Your task to perform on an android device: empty trash in google photos Image 0: 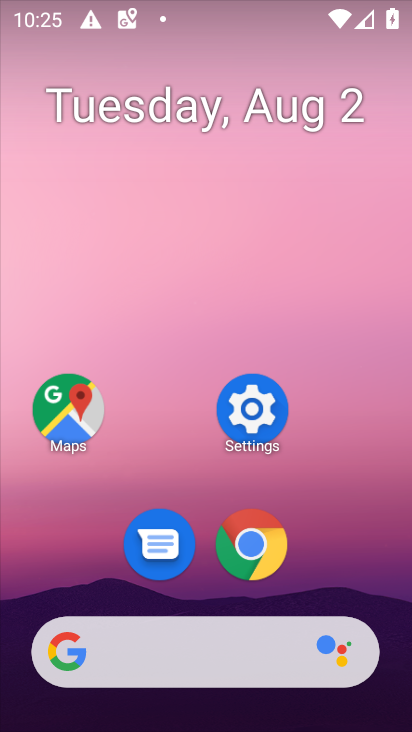
Step 0: press home button
Your task to perform on an android device: empty trash in google photos Image 1: 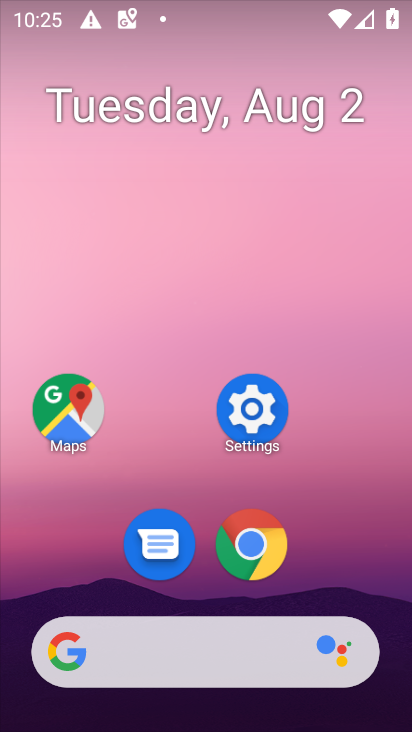
Step 1: drag from (205, 647) to (354, 73)
Your task to perform on an android device: empty trash in google photos Image 2: 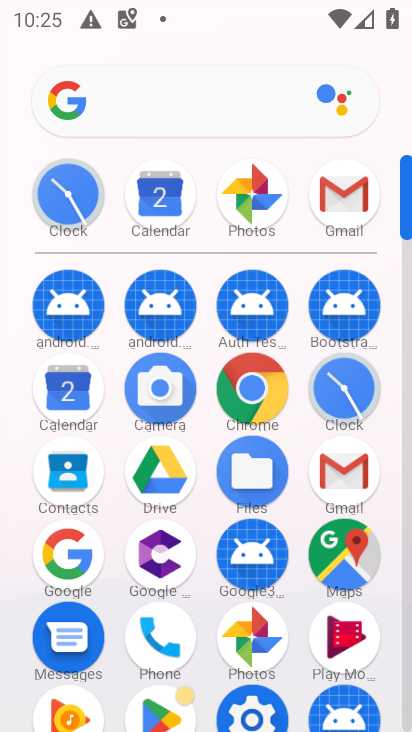
Step 2: click (254, 190)
Your task to perform on an android device: empty trash in google photos Image 3: 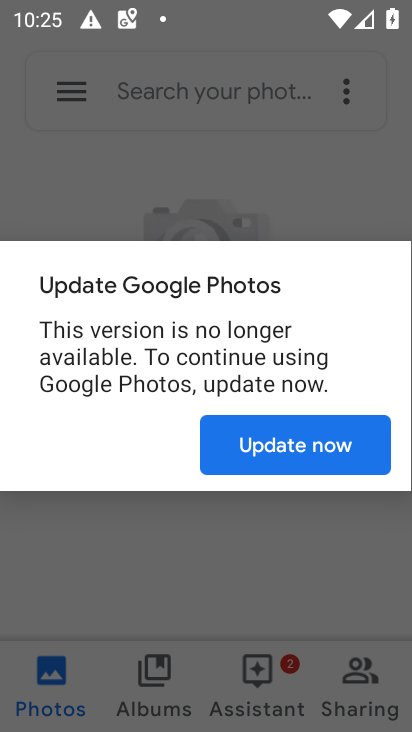
Step 3: click (298, 444)
Your task to perform on an android device: empty trash in google photos Image 4: 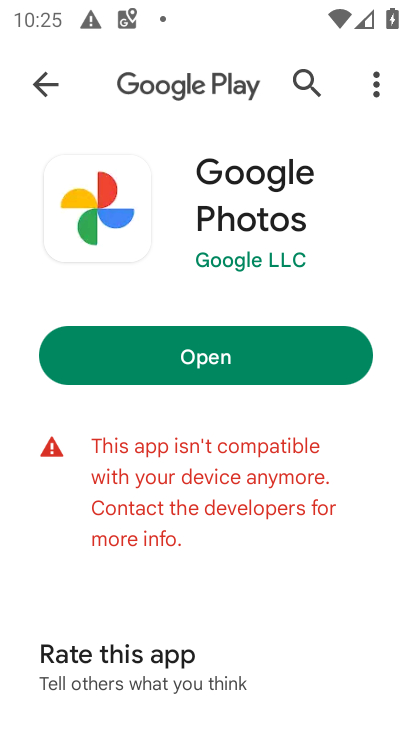
Step 4: task complete